Your task to perform on an android device: Go to Maps Image 0: 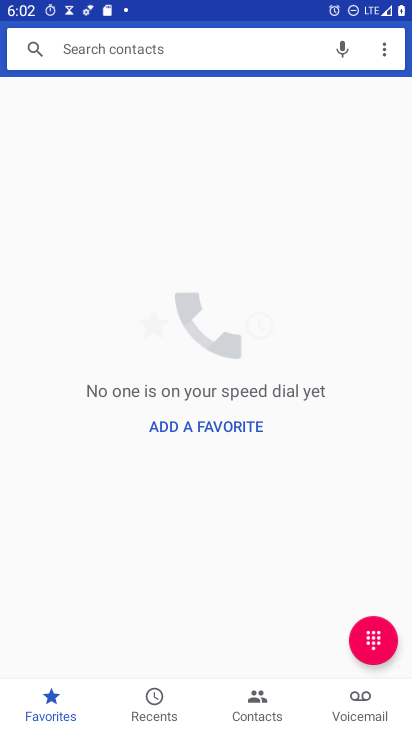
Step 0: press home button
Your task to perform on an android device: Go to Maps Image 1: 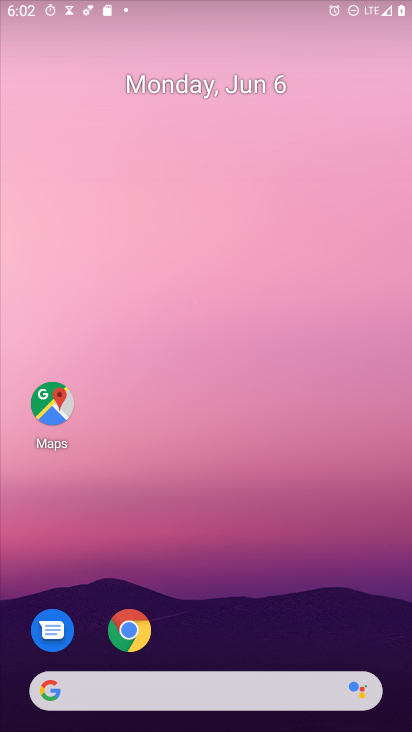
Step 1: click (53, 391)
Your task to perform on an android device: Go to Maps Image 2: 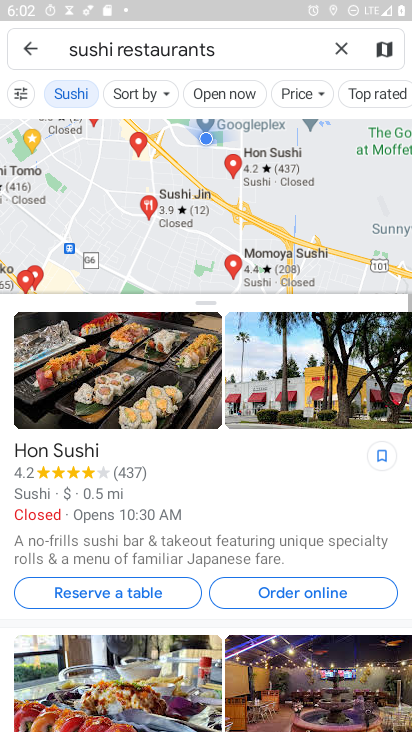
Step 2: task complete